Your task to perform on an android device: find photos in the google photos app Image 0: 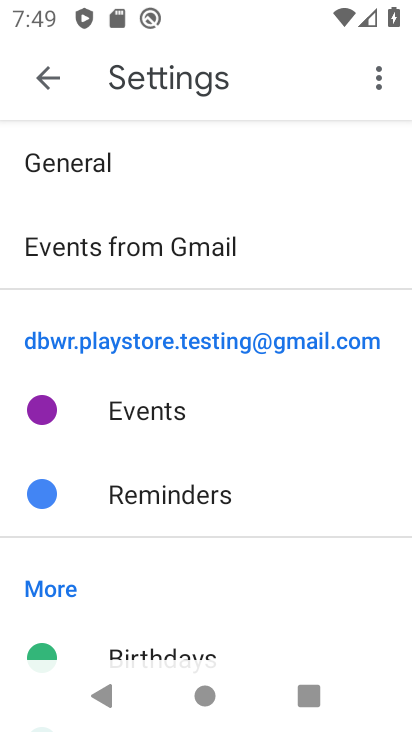
Step 0: press home button
Your task to perform on an android device: find photos in the google photos app Image 1: 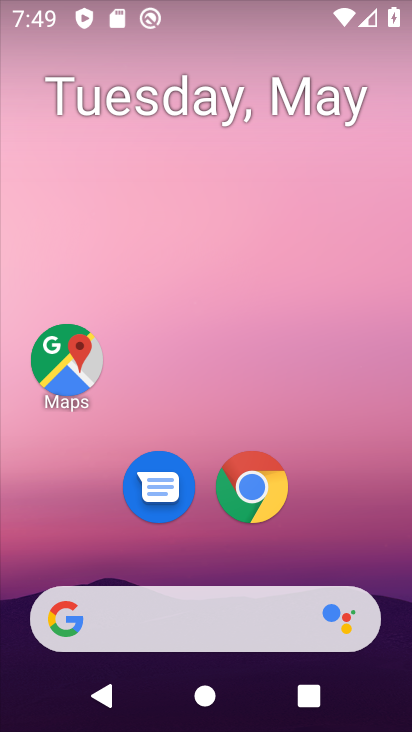
Step 1: drag from (365, 548) to (245, 5)
Your task to perform on an android device: find photos in the google photos app Image 2: 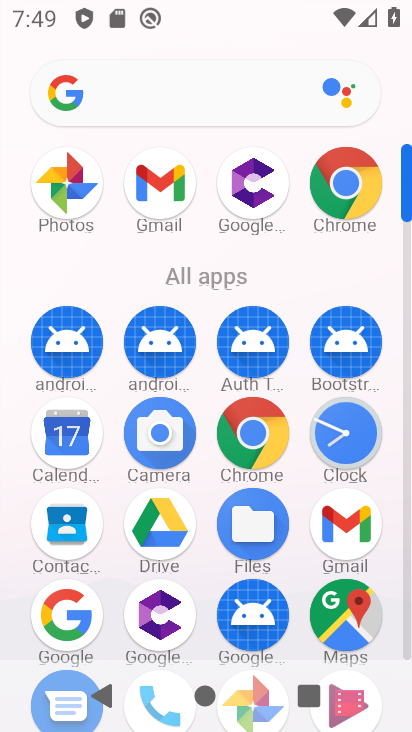
Step 2: click (407, 644)
Your task to perform on an android device: find photos in the google photos app Image 3: 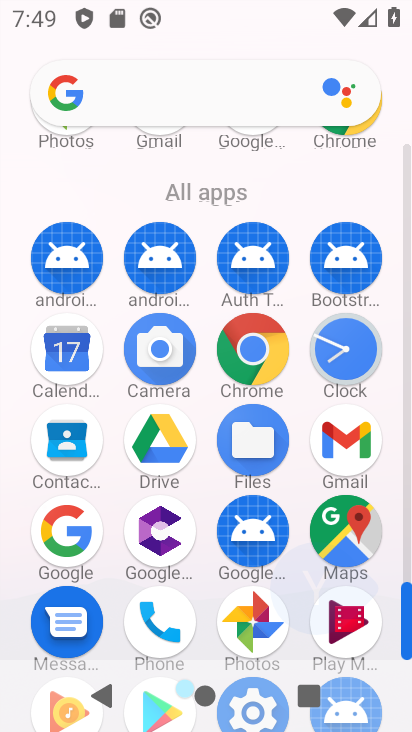
Step 3: click (407, 644)
Your task to perform on an android device: find photos in the google photos app Image 4: 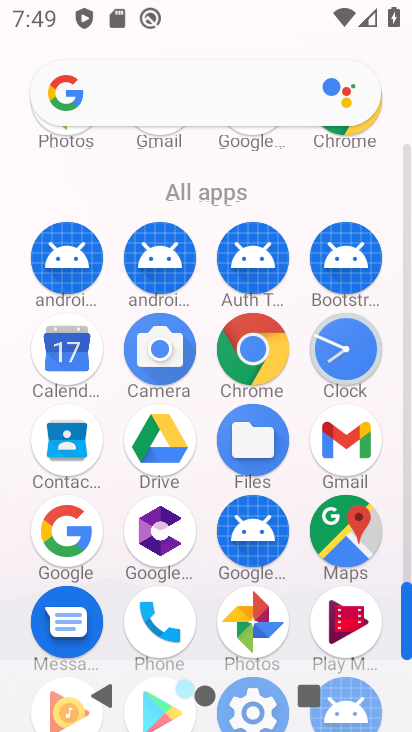
Step 4: click (407, 644)
Your task to perform on an android device: find photos in the google photos app Image 5: 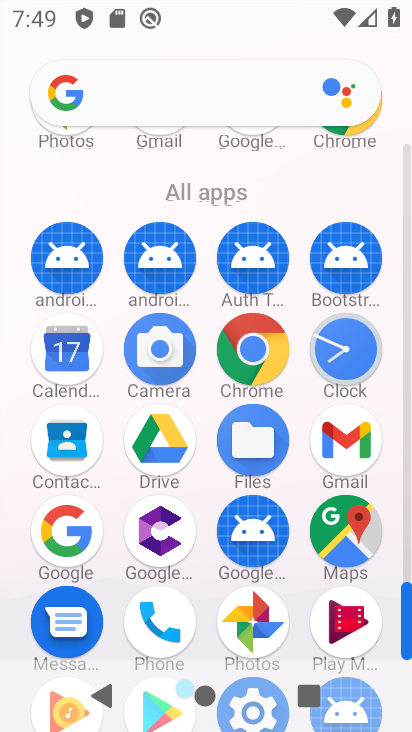
Step 5: click (250, 630)
Your task to perform on an android device: find photos in the google photos app Image 6: 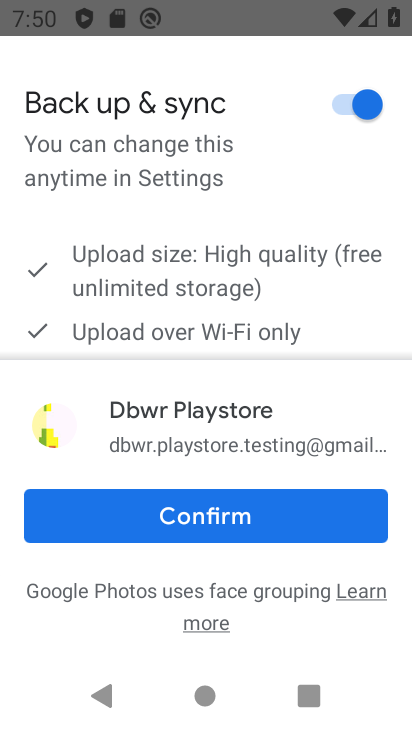
Step 6: click (208, 513)
Your task to perform on an android device: find photos in the google photos app Image 7: 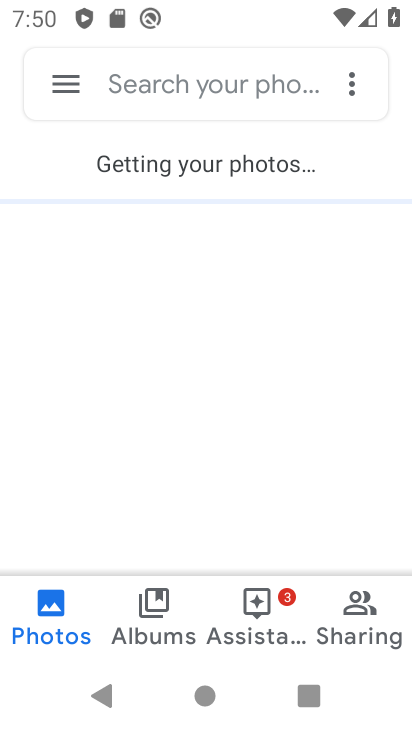
Step 7: click (67, 92)
Your task to perform on an android device: find photos in the google photos app Image 8: 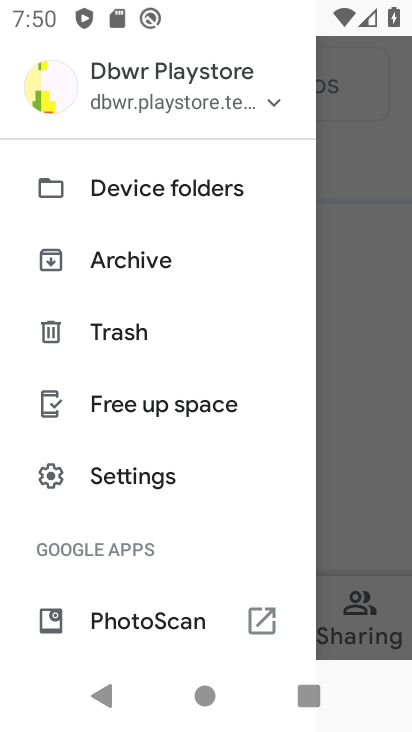
Step 8: click (103, 277)
Your task to perform on an android device: find photos in the google photos app Image 9: 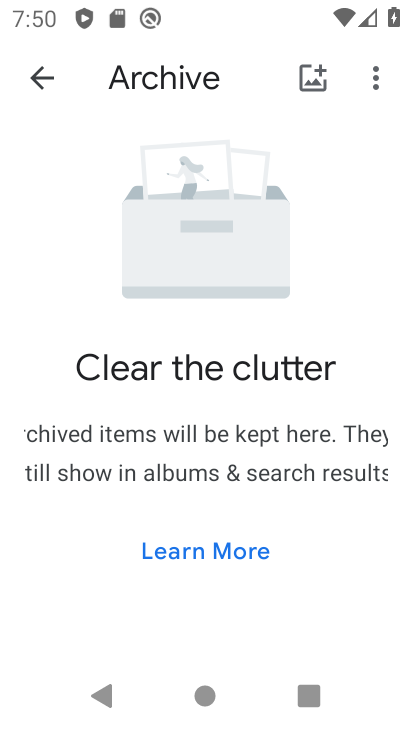
Step 9: task complete